Your task to perform on an android device: Go to sound settings Image 0: 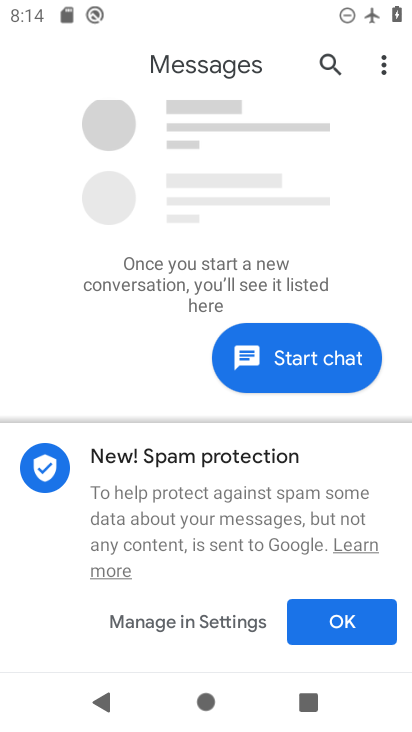
Step 0: press home button
Your task to perform on an android device: Go to sound settings Image 1: 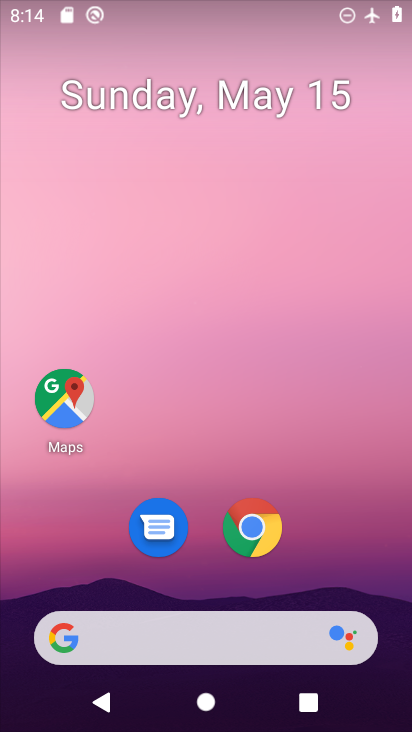
Step 1: drag from (202, 570) to (203, 168)
Your task to perform on an android device: Go to sound settings Image 2: 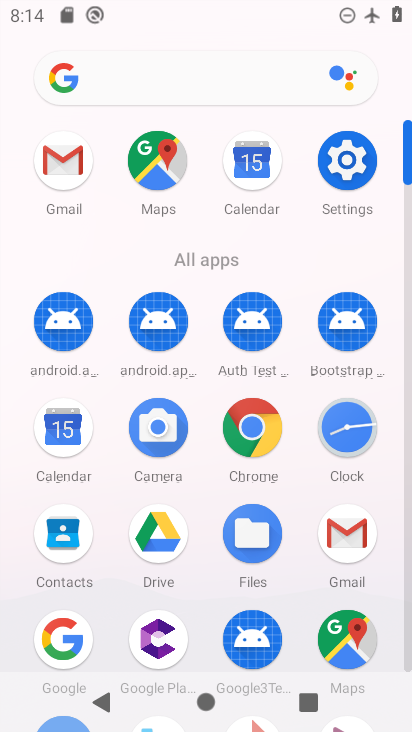
Step 2: click (353, 174)
Your task to perform on an android device: Go to sound settings Image 3: 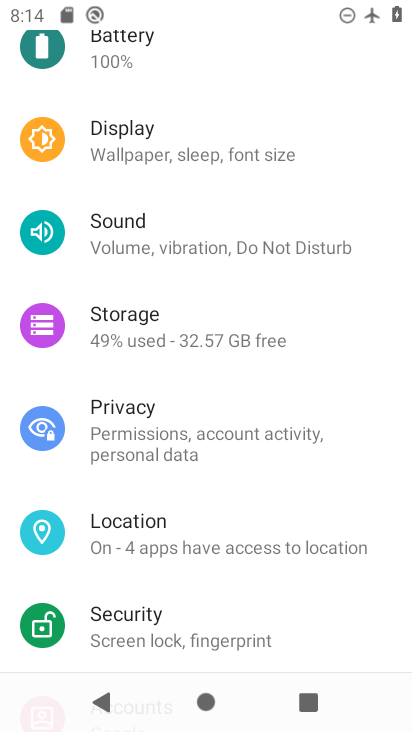
Step 3: click (151, 252)
Your task to perform on an android device: Go to sound settings Image 4: 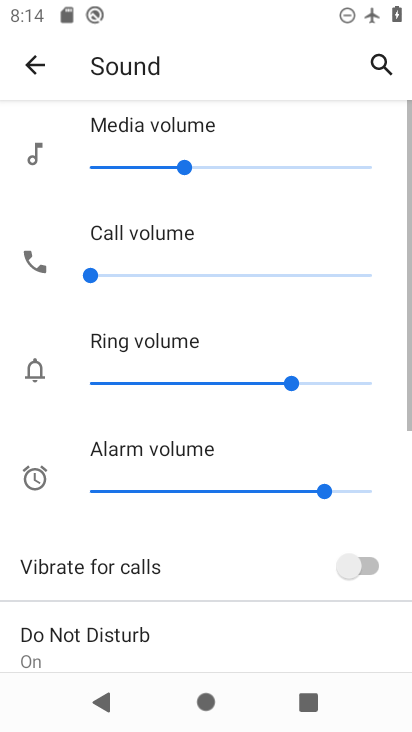
Step 4: task complete